Your task to perform on an android device: turn off sleep mode Image 0: 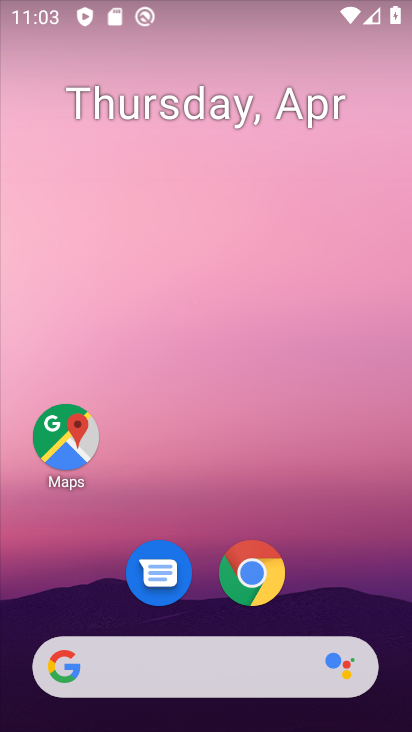
Step 0: drag from (327, 611) to (344, 60)
Your task to perform on an android device: turn off sleep mode Image 1: 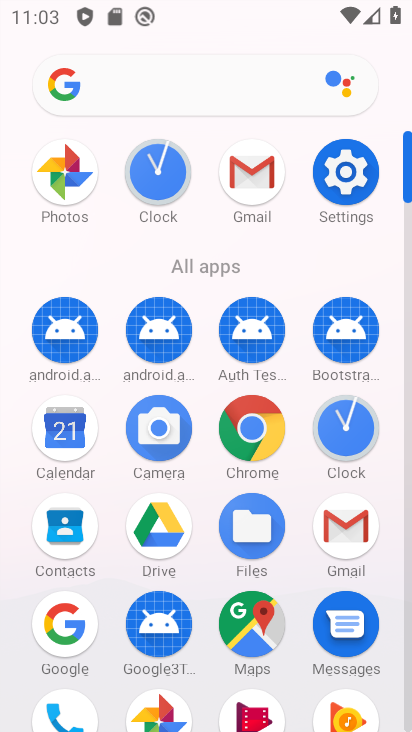
Step 1: click (351, 207)
Your task to perform on an android device: turn off sleep mode Image 2: 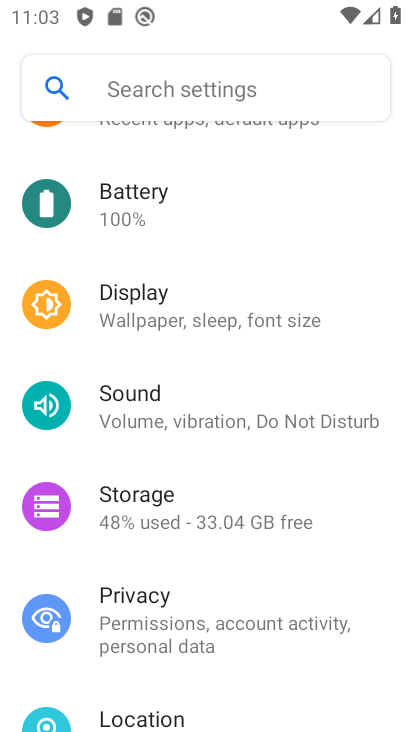
Step 2: click (223, 312)
Your task to perform on an android device: turn off sleep mode Image 3: 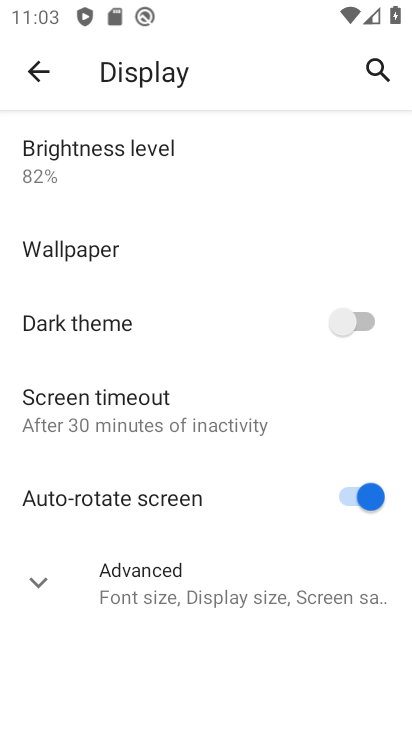
Step 3: click (180, 593)
Your task to perform on an android device: turn off sleep mode Image 4: 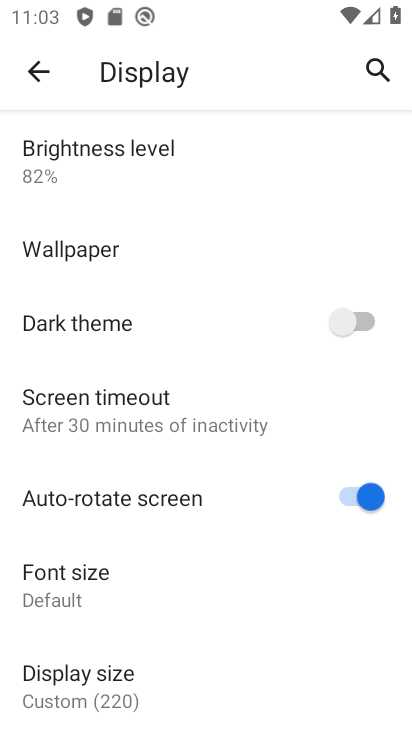
Step 4: task complete